Your task to perform on an android device: Search for pizza restaurants on Maps Image 0: 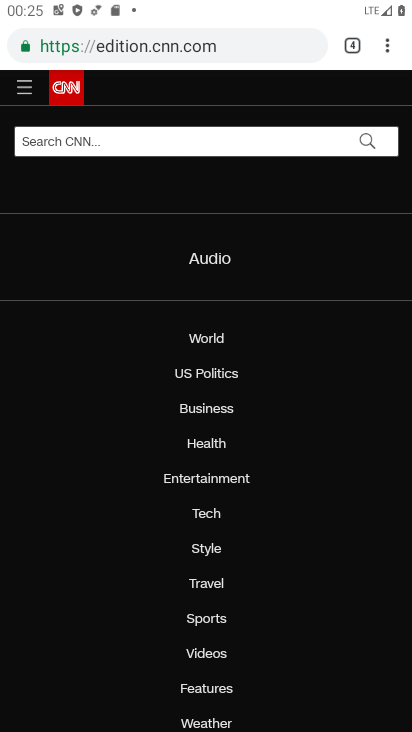
Step 0: press home button
Your task to perform on an android device: Search for pizza restaurants on Maps Image 1: 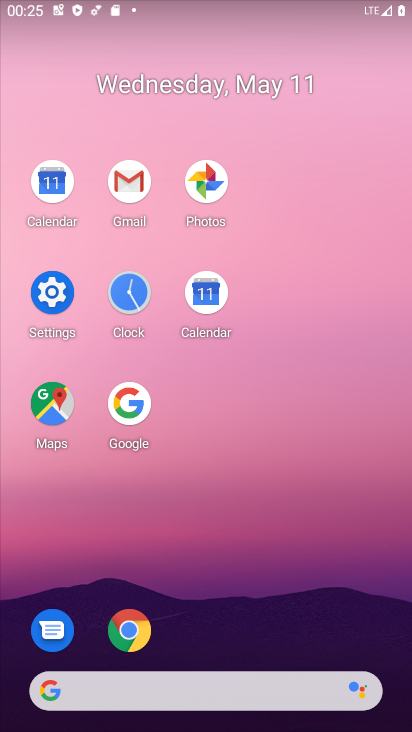
Step 1: click (61, 406)
Your task to perform on an android device: Search for pizza restaurants on Maps Image 2: 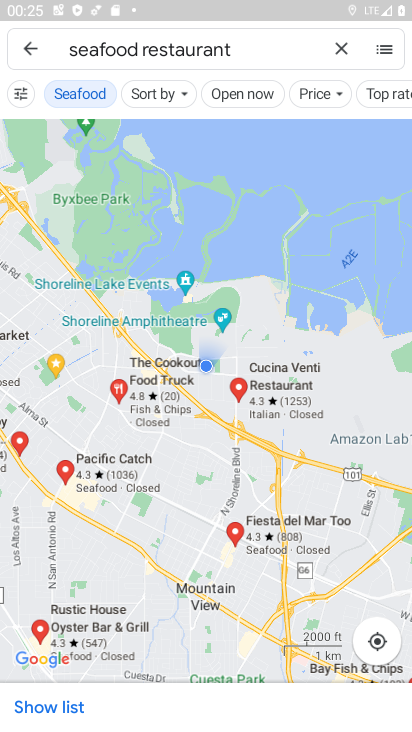
Step 2: click (335, 48)
Your task to perform on an android device: Search for pizza restaurants on Maps Image 3: 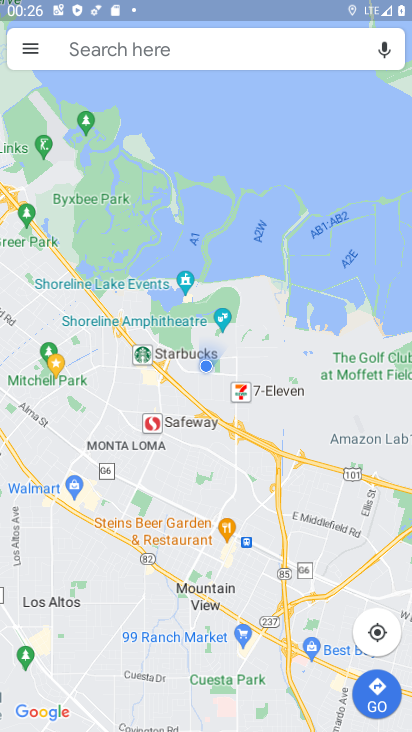
Step 3: click (136, 56)
Your task to perform on an android device: Search for pizza restaurants on Maps Image 4: 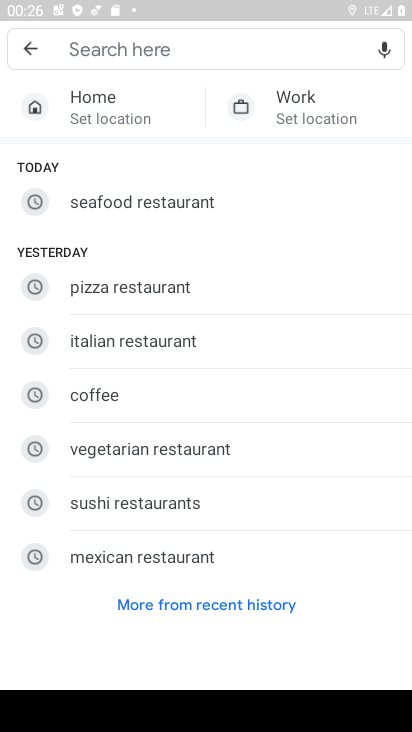
Step 4: click (197, 285)
Your task to perform on an android device: Search for pizza restaurants on Maps Image 5: 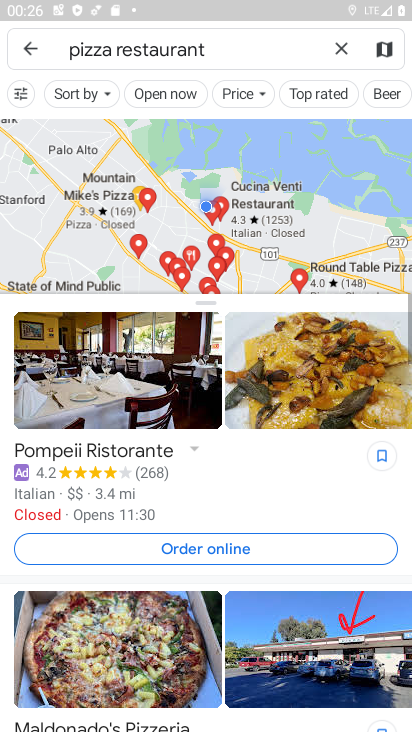
Step 5: task complete